Your task to perform on an android device: Find coffee shops on Maps Image 0: 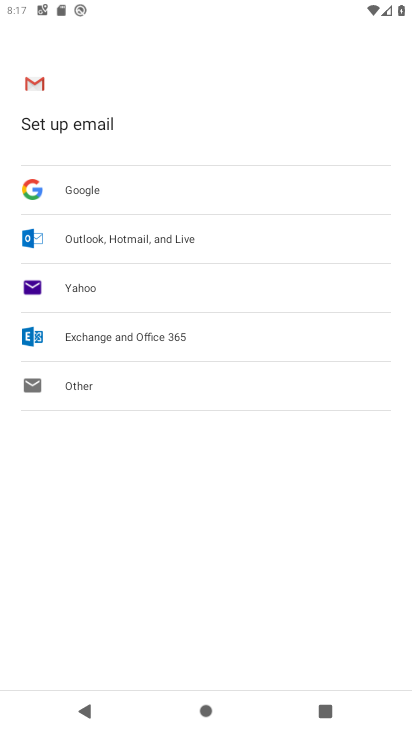
Step 0: press home button
Your task to perform on an android device: Find coffee shops on Maps Image 1: 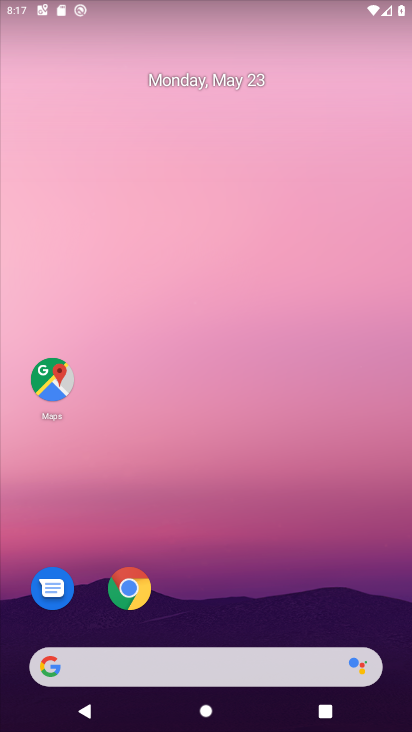
Step 1: click (52, 376)
Your task to perform on an android device: Find coffee shops on Maps Image 2: 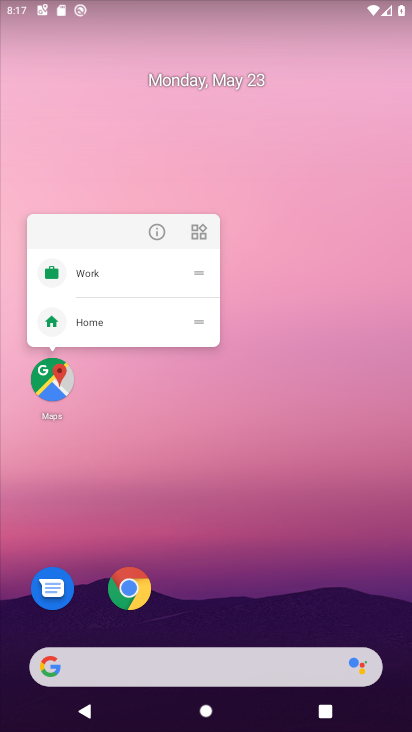
Step 2: click (48, 385)
Your task to perform on an android device: Find coffee shops on Maps Image 3: 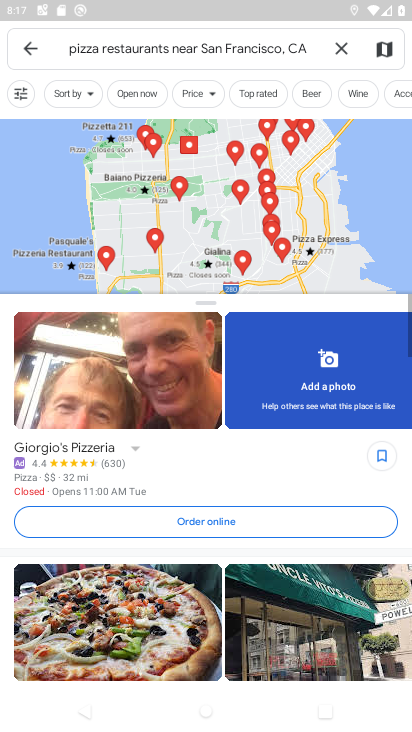
Step 3: click (125, 51)
Your task to perform on an android device: Find coffee shops on Maps Image 4: 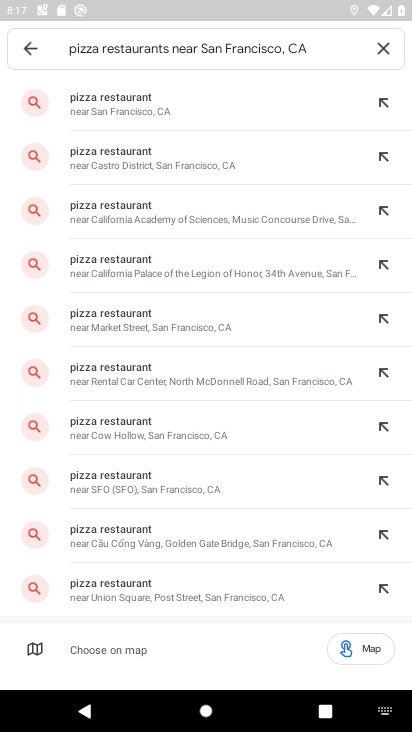
Step 4: click (384, 44)
Your task to perform on an android device: Find coffee shops on Maps Image 5: 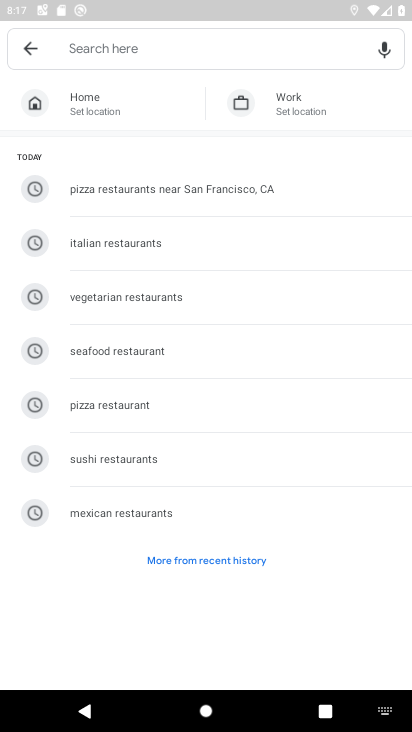
Step 5: type "coffee shops"
Your task to perform on an android device: Find coffee shops on Maps Image 6: 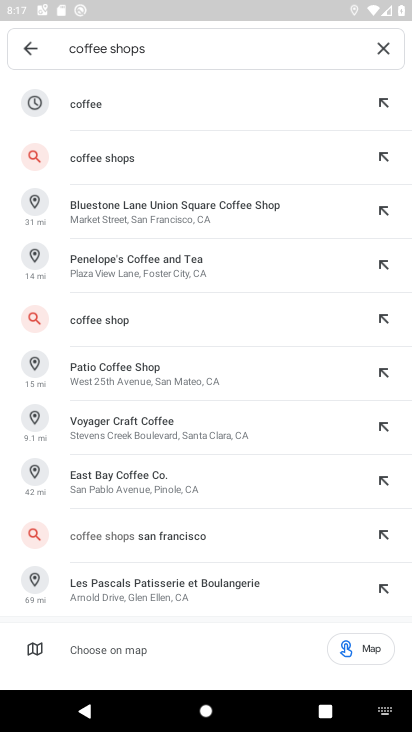
Step 6: click (146, 158)
Your task to perform on an android device: Find coffee shops on Maps Image 7: 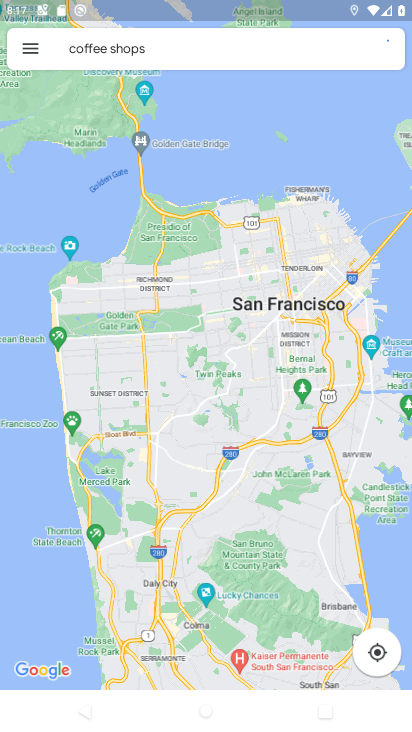
Step 7: task complete